Your task to perform on an android device: toggle sleep mode Image 0: 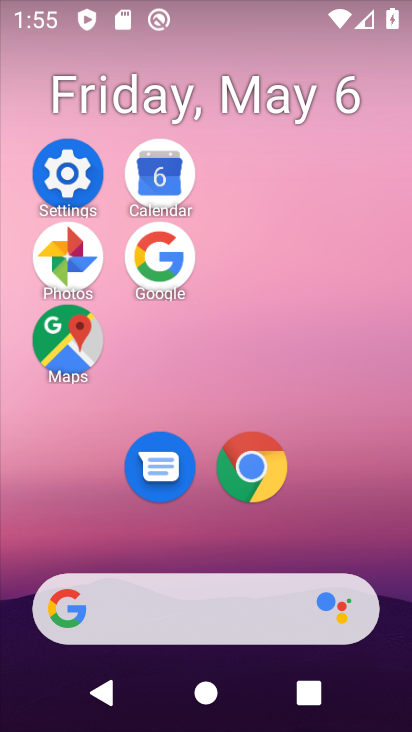
Step 0: click (79, 159)
Your task to perform on an android device: toggle sleep mode Image 1: 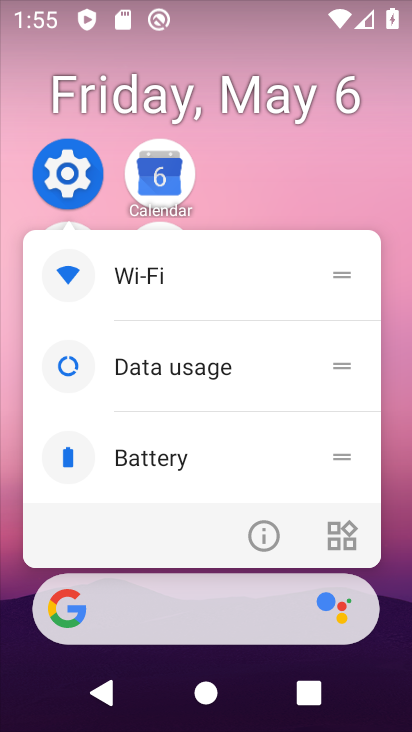
Step 1: click (69, 174)
Your task to perform on an android device: toggle sleep mode Image 2: 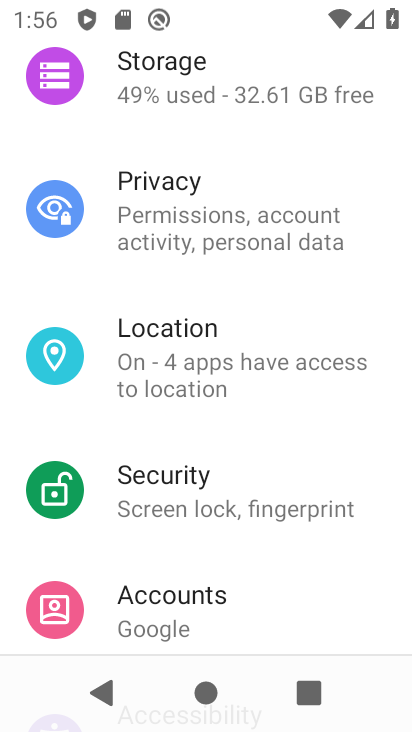
Step 2: drag from (292, 155) to (334, 540)
Your task to perform on an android device: toggle sleep mode Image 3: 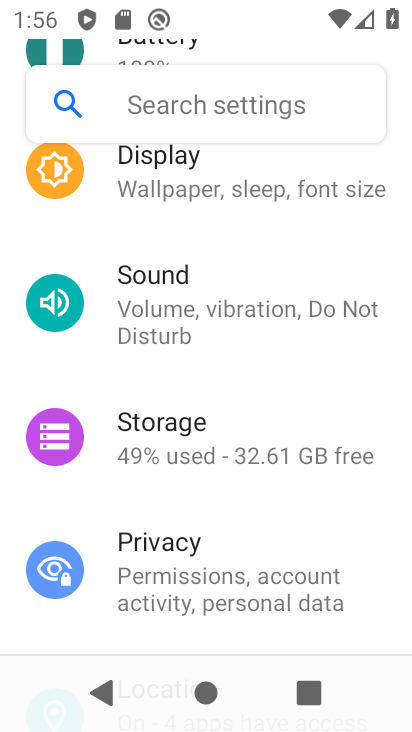
Step 3: click (252, 189)
Your task to perform on an android device: toggle sleep mode Image 4: 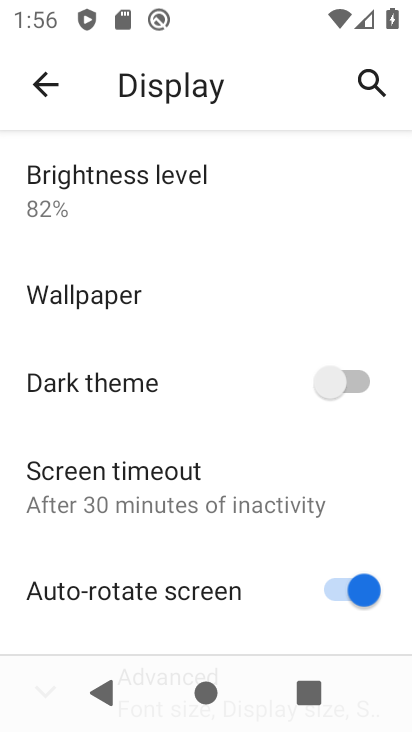
Step 4: click (273, 506)
Your task to perform on an android device: toggle sleep mode Image 5: 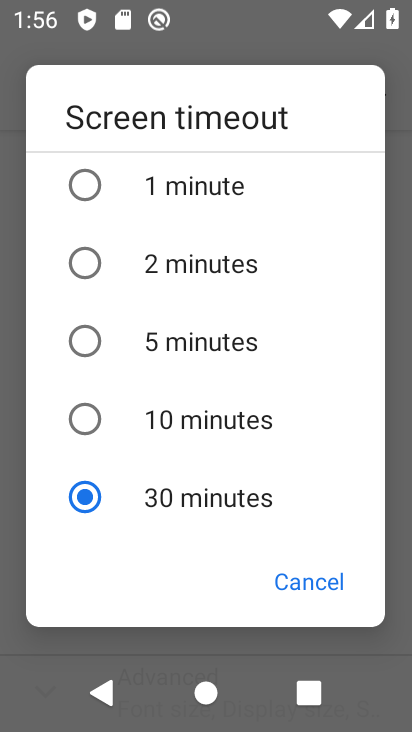
Step 5: click (93, 267)
Your task to perform on an android device: toggle sleep mode Image 6: 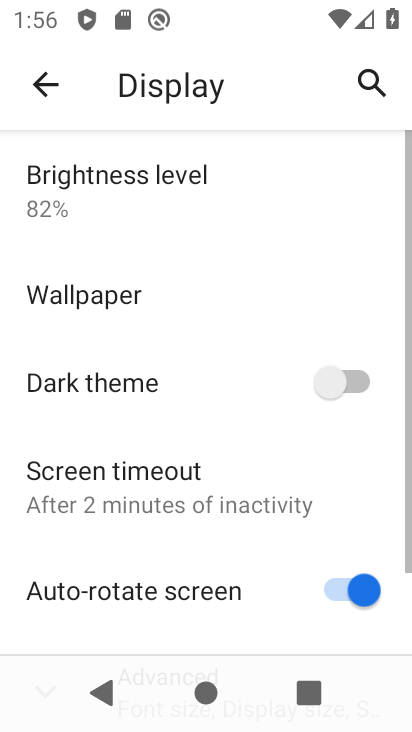
Step 6: task complete